Your task to perform on an android device: change text size in settings app Image 0: 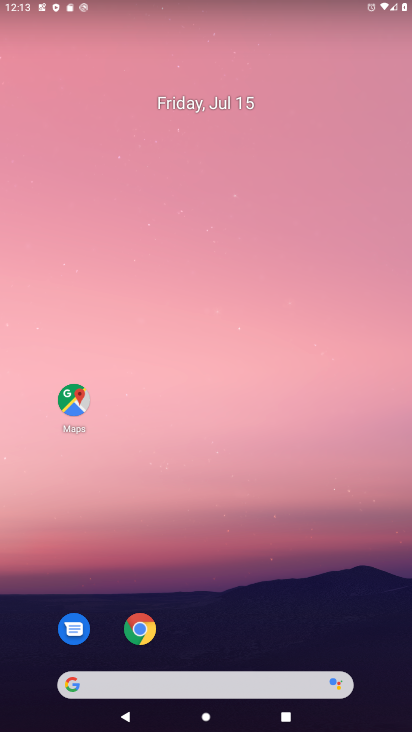
Step 0: press home button
Your task to perform on an android device: change text size in settings app Image 1: 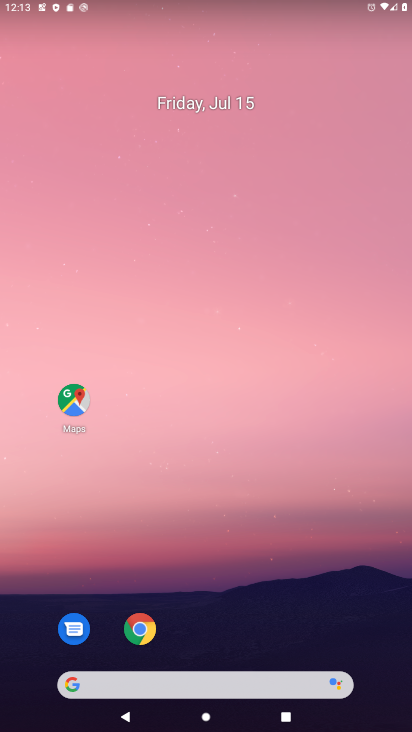
Step 1: drag from (223, 437) to (231, 160)
Your task to perform on an android device: change text size in settings app Image 2: 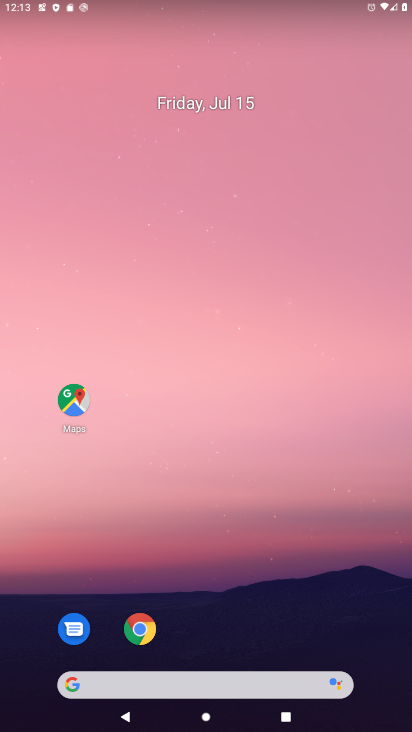
Step 2: drag from (306, 526) to (353, 0)
Your task to perform on an android device: change text size in settings app Image 3: 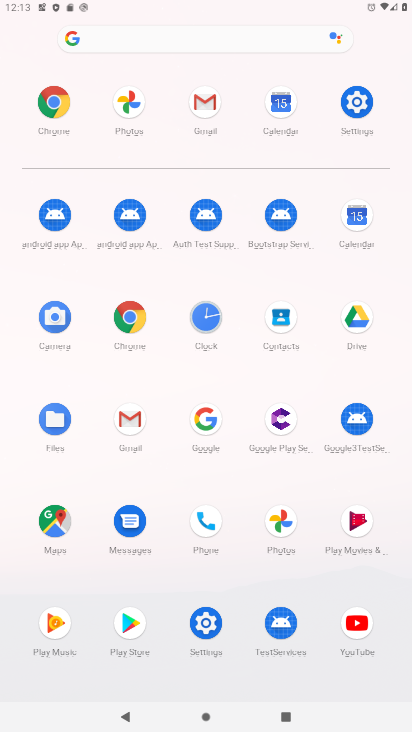
Step 3: click (360, 100)
Your task to perform on an android device: change text size in settings app Image 4: 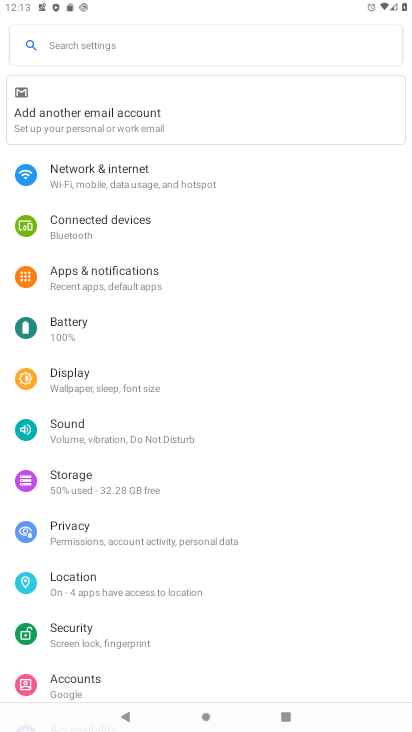
Step 4: click (104, 382)
Your task to perform on an android device: change text size in settings app Image 5: 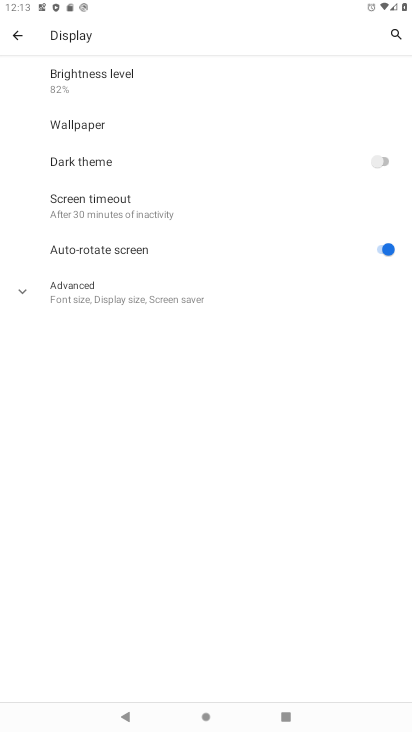
Step 5: click (63, 299)
Your task to perform on an android device: change text size in settings app Image 6: 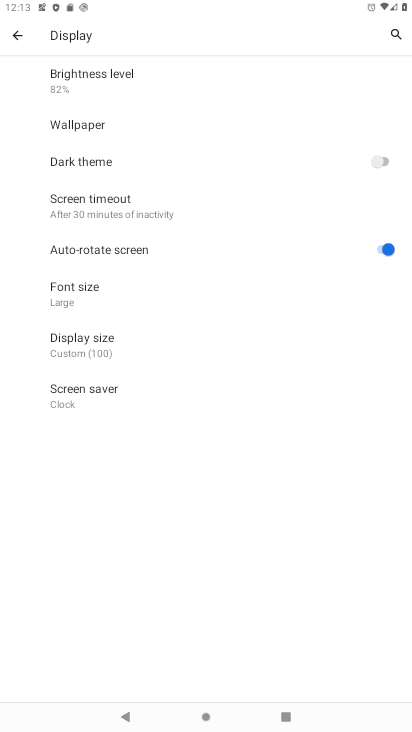
Step 6: click (73, 286)
Your task to perform on an android device: change text size in settings app Image 7: 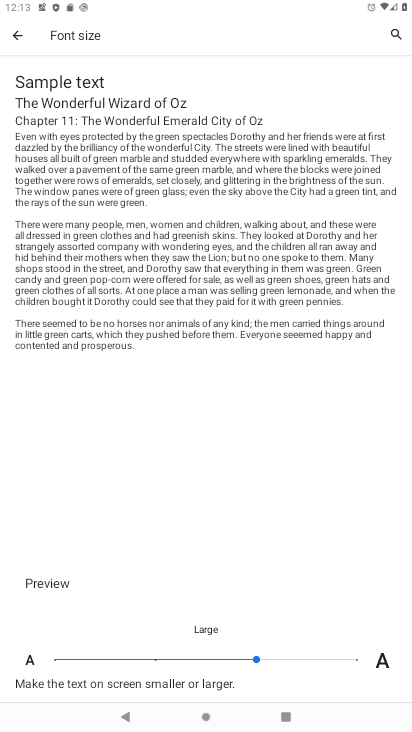
Step 7: click (330, 659)
Your task to perform on an android device: change text size in settings app Image 8: 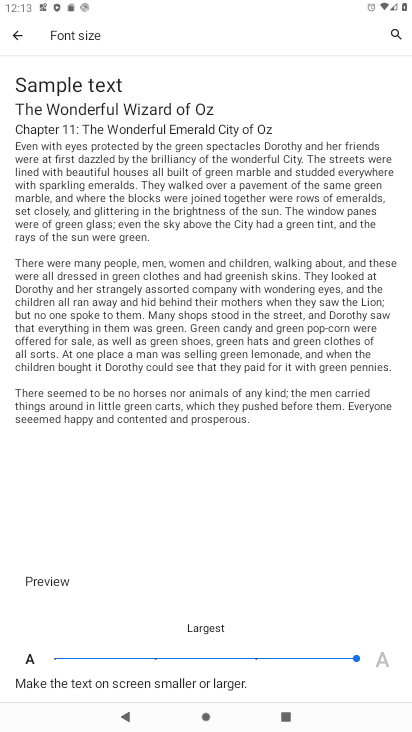
Step 8: task complete